Your task to perform on an android device: turn on improve location accuracy Image 0: 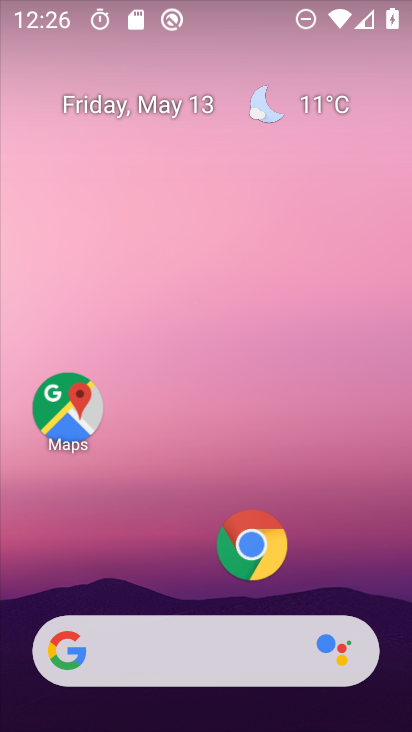
Step 0: press home button
Your task to perform on an android device: turn on improve location accuracy Image 1: 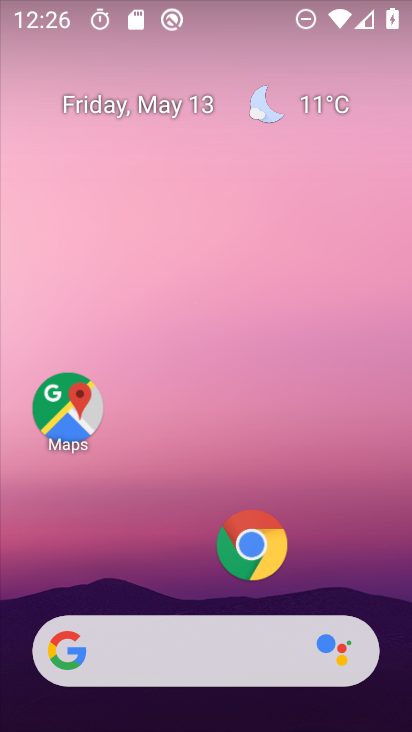
Step 1: drag from (194, 599) to (250, 25)
Your task to perform on an android device: turn on improve location accuracy Image 2: 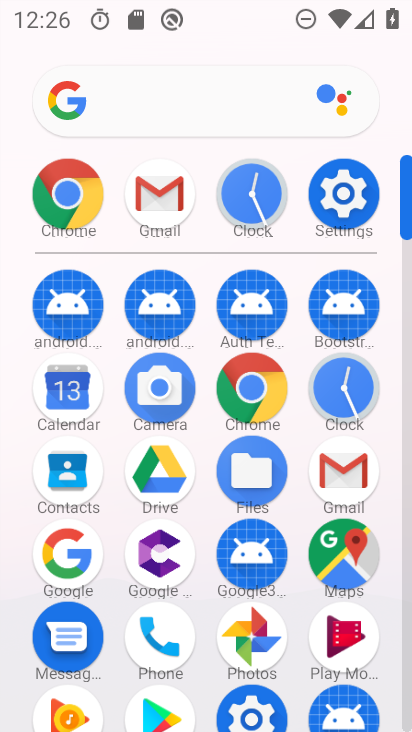
Step 2: click (341, 183)
Your task to perform on an android device: turn on improve location accuracy Image 3: 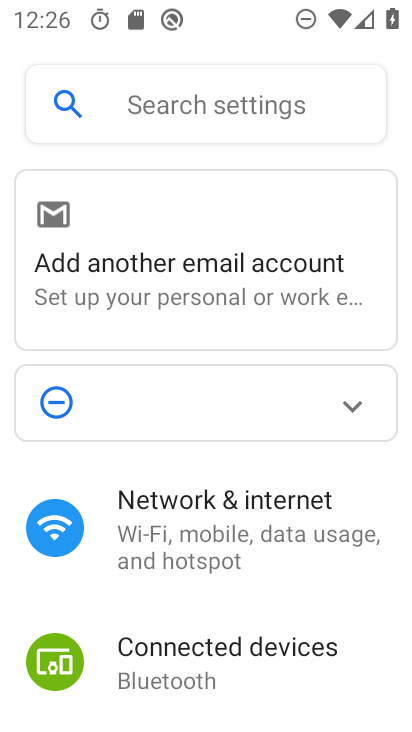
Step 3: drag from (247, 684) to (290, 173)
Your task to perform on an android device: turn on improve location accuracy Image 4: 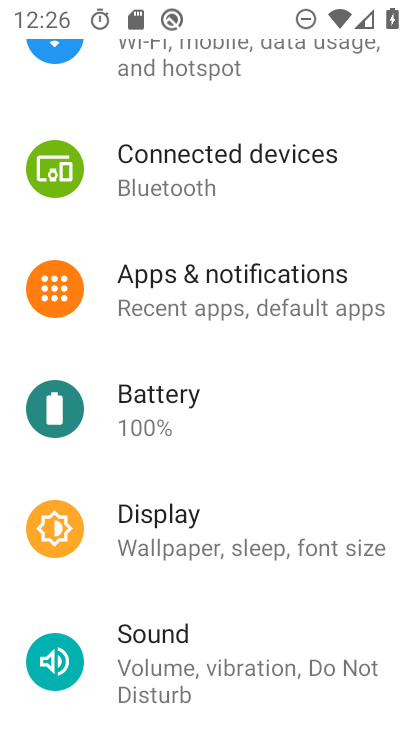
Step 4: drag from (213, 690) to (230, 74)
Your task to perform on an android device: turn on improve location accuracy Image 5: 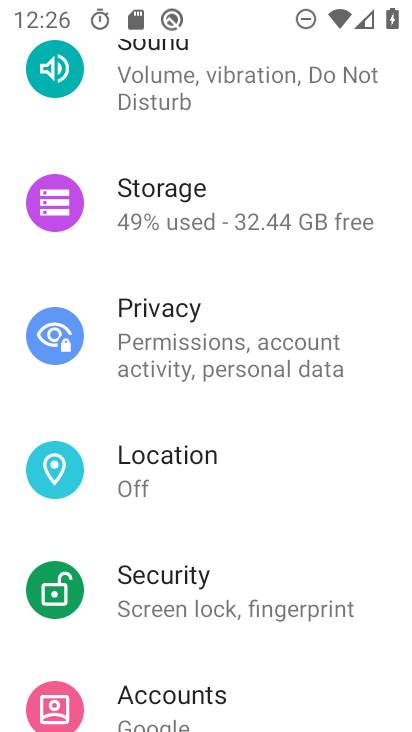
Step 5: click (168, 475)
Your task to perform on an android device: turn on improve location accuracy Image 6: 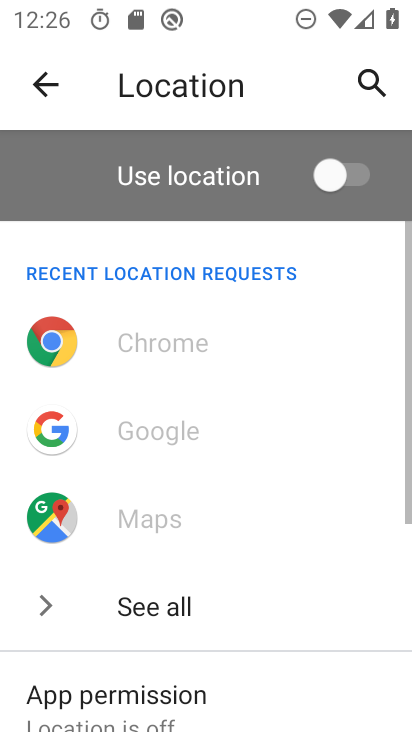
Step 6: drag from (178, 640) to (232, 103)
Your task to perform on an android device: turn on improve location accuracy Image 7: 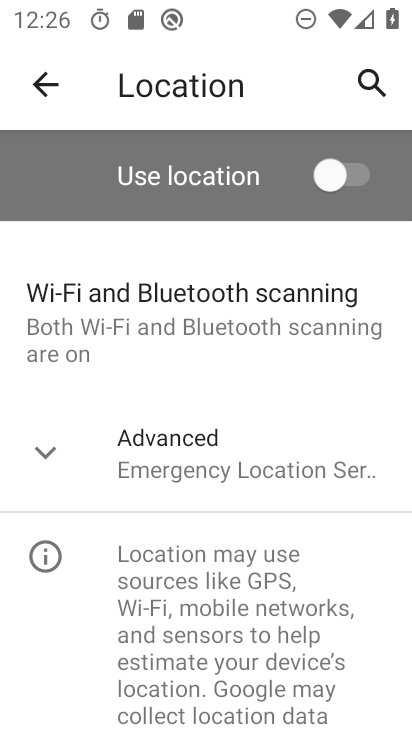
Step 7: click (47, 448)
Your task to perform on an android device: turn on improve location accuracy Image 8: 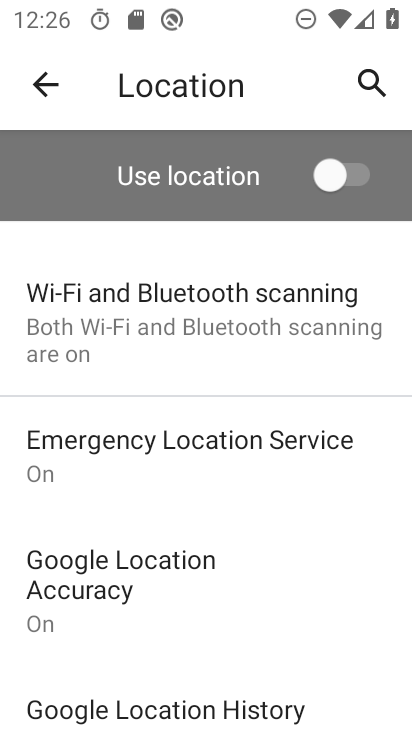
Step 8: click (159, 588)
Your task to perform on an android device: turn on improve location accuracy Image 9: 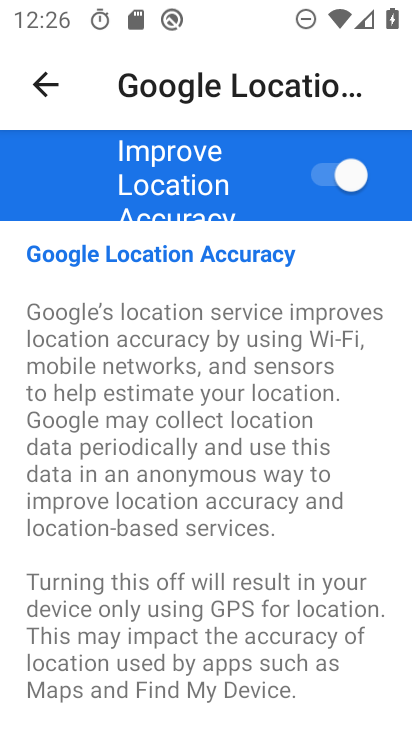
Step 9: task complete